Your task to perform on an android device: turn on data saver in the chrome app Image 0: 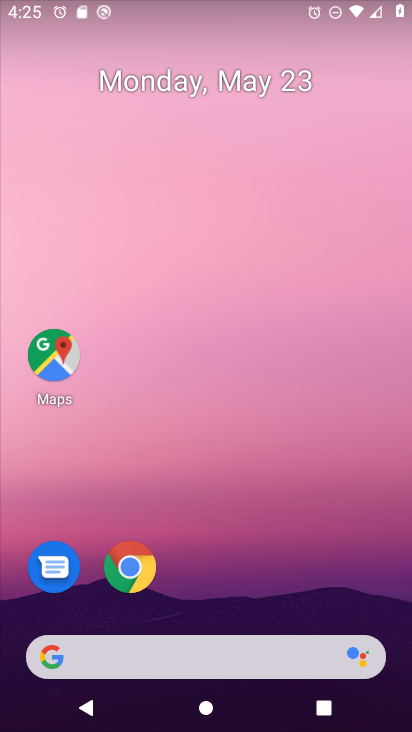
Step 0: click (123, 563)
Your task to perform on an android device: turn on data saver in the chrome app Image 1: 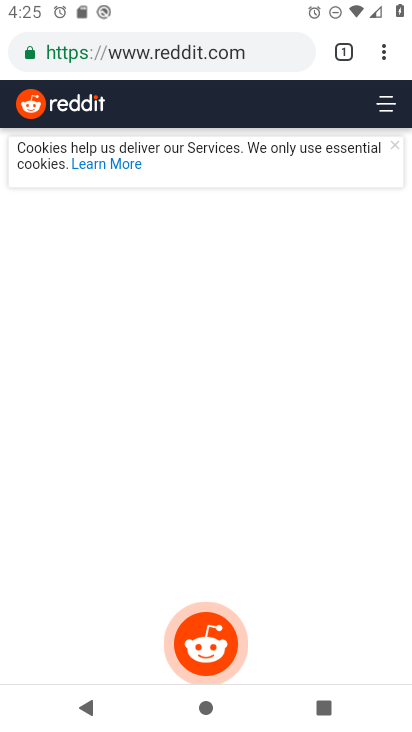
Step 1: click (377, 52)
Your task to perform on an android device: turn on data saver in the chrome app Image 2: 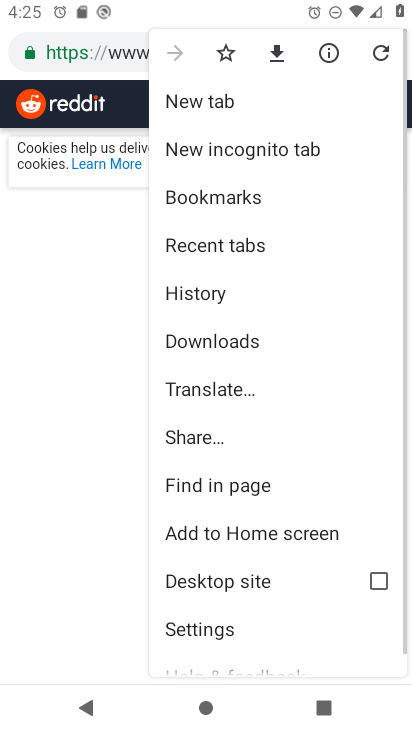
Step 2: drag from (273, 545) to (293, 171)
Your task to perform on an android device: turn on data saver in the chrome app Image 3: 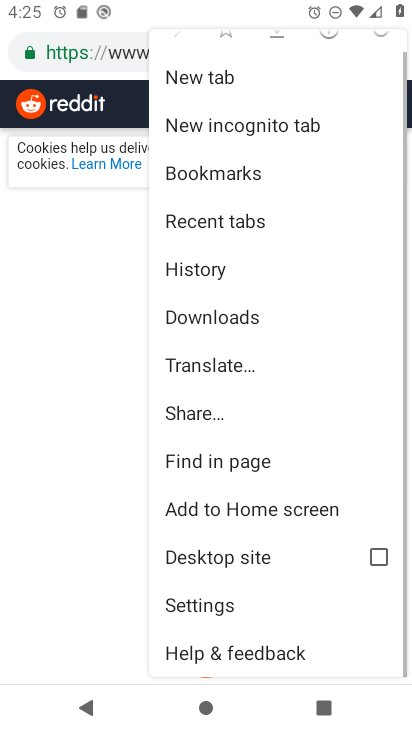
Step 3: click (212, 601)
Your task to perform on an android device: turn on data saver in the chrome app Image 4: 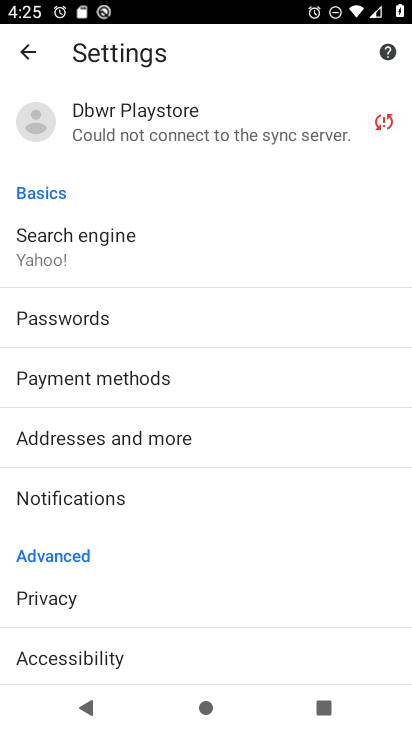
Step 4: drag from (182, 596) to (195, 325)
Your task to perform on an android device: turn on data saver in the chrome app Image 5: 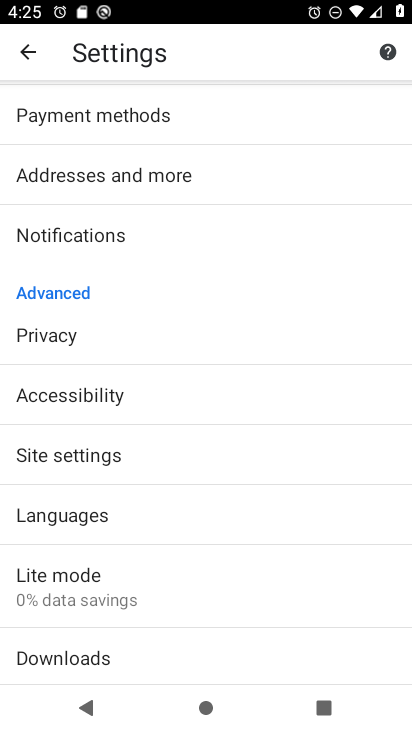
Step 5: click (58, 589)
Your task to perform on an android device: turn on data saver in the chrome app Image 6: 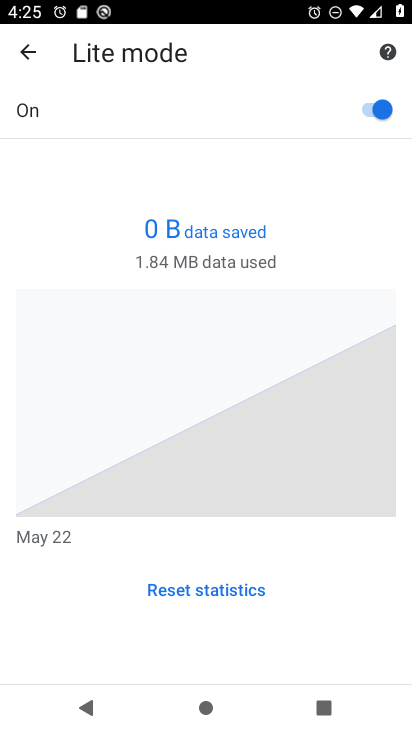
Step 6: task complete